Your task to perform on an android device: open device folders in google photos Image 0: 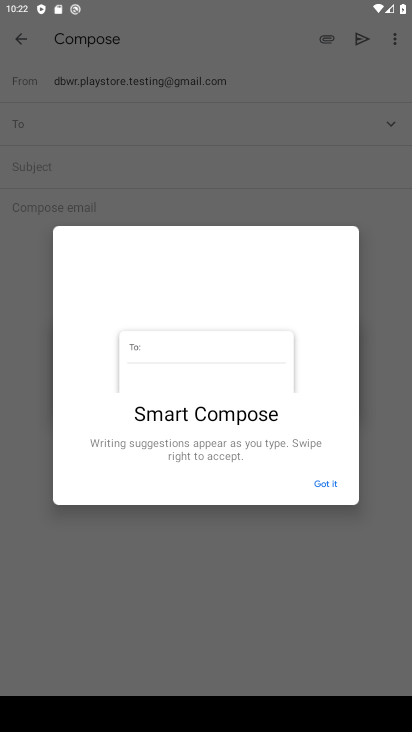
Step 0: click (327, 491)
Your task to perform on an android device: open device folders in google photos Image 1: 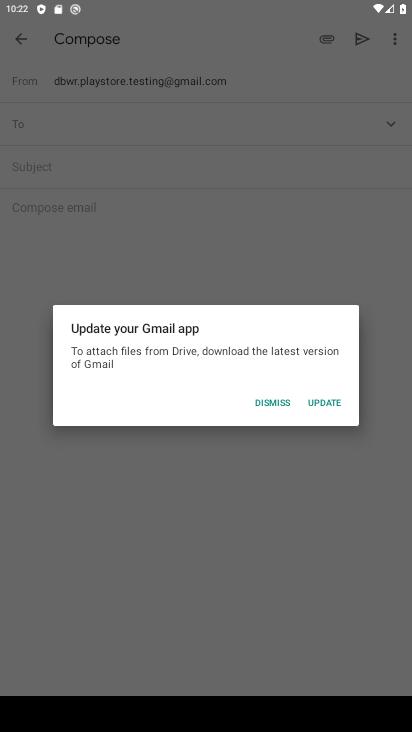
Step 1: click (269, 397)
Your task to perform on an android device: open device folders in google photos Image 2: 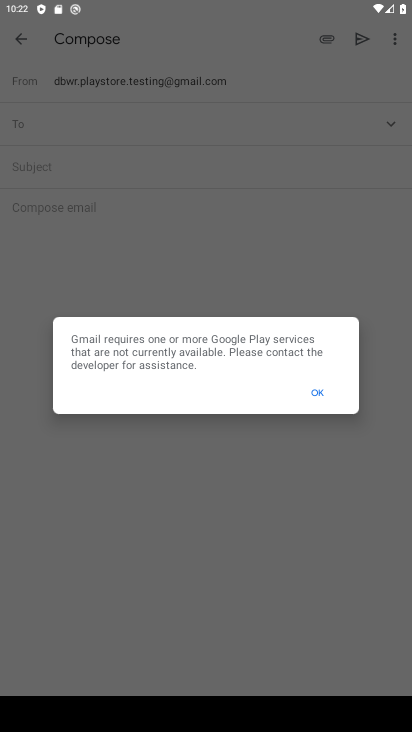
Step 2: click (319, 395)
Your task to perform on an android device: open device folders in google photos Image 3: 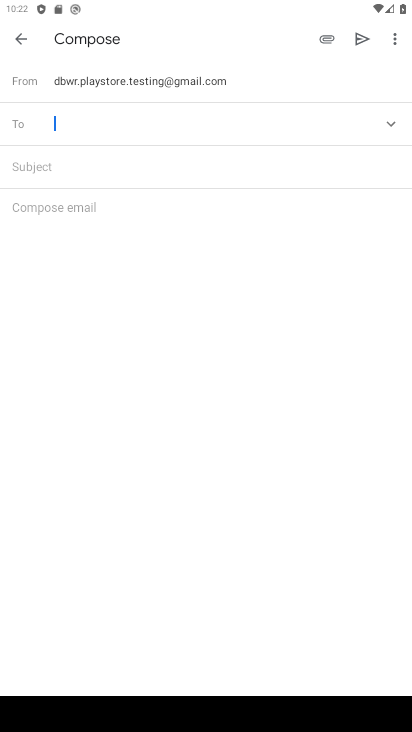
Step 3: click (21, 39)
Your task to perform on an android device: open device folders in google photos Image 4: 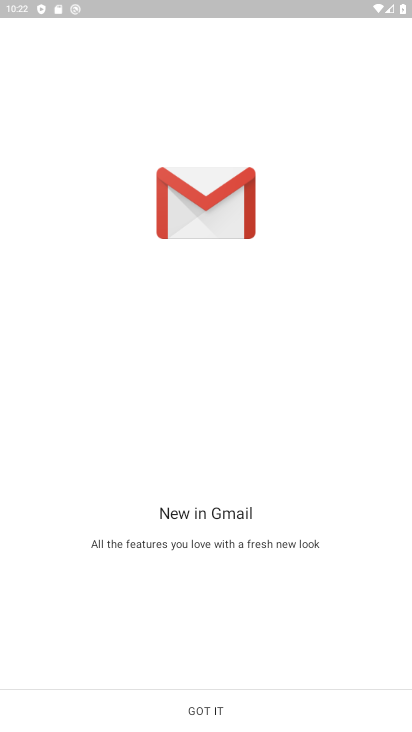
Step 4: press home button
Your task to perform on an android device: open device folders in google photos Image 5: 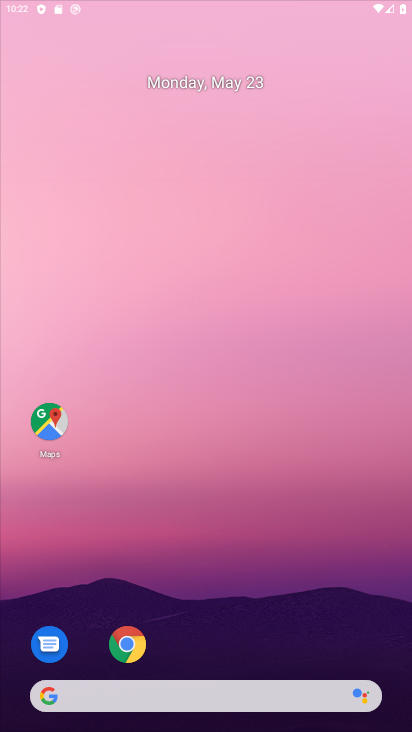
Step 5: press home button
Your task to perform on an android device: open device folders in google photos Image 6: 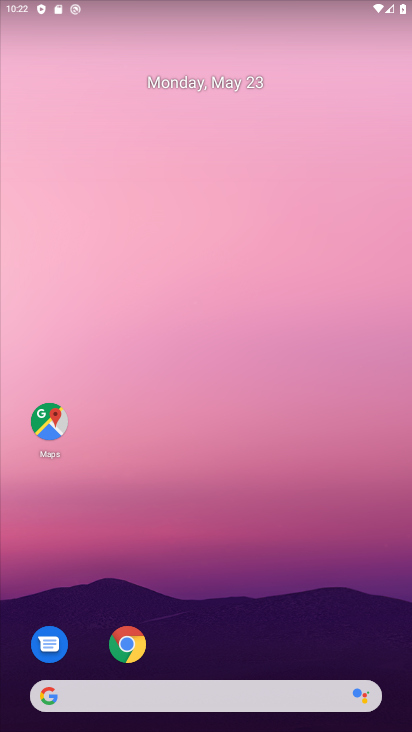
Step 6: drag from (305, 449) to (306, 41)
Your task to perform on an android device: open device folders in google photos Image 7: 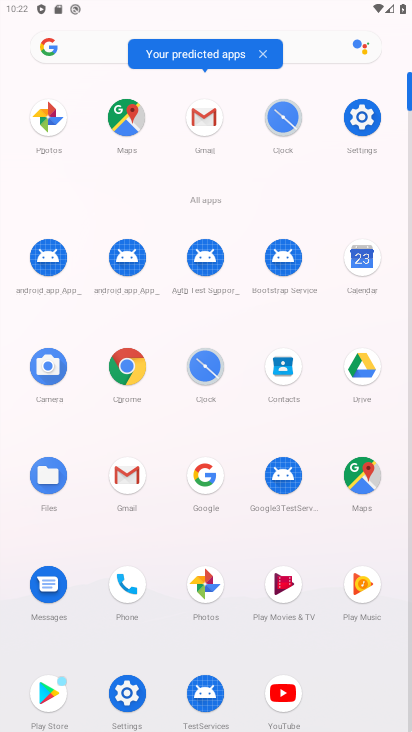
Step 7: click (210, 584)
Your task to perform on an android device: open device folders in google photos Image 8: 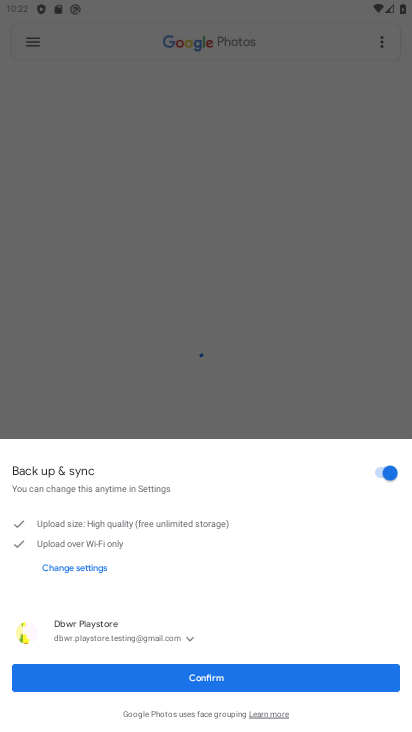
Step 8: click (228, 682)
Your task to perform on an android device: open device folders in google photos Image 9: 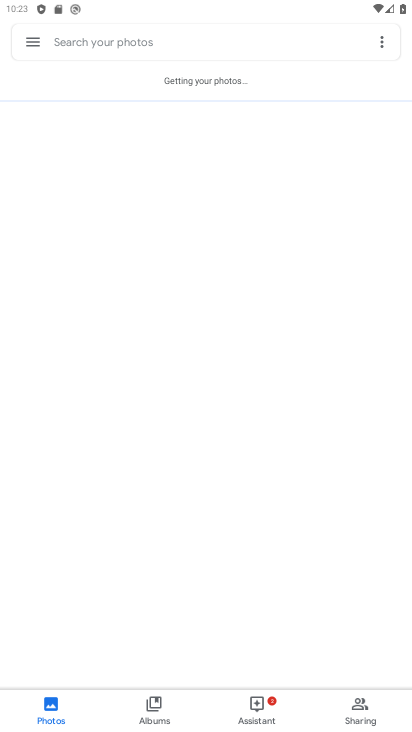
Step 9: click (22, 43)
Your task to perform on an android device: open device folders in google photos Image 10: 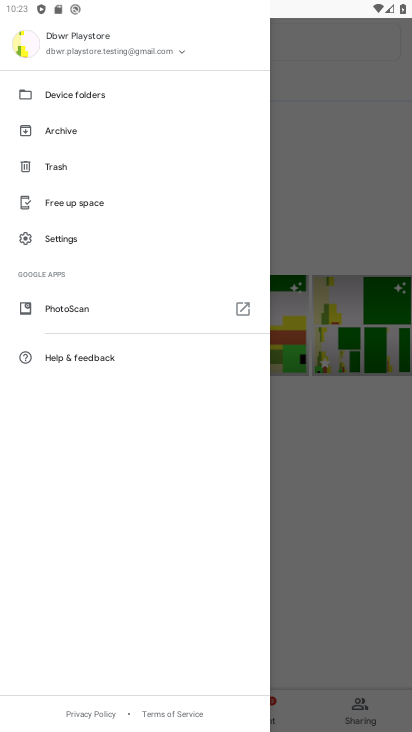
Step 10: click (51, 92)
Your task to perform on an android device: open device folders in google photos Image 11: 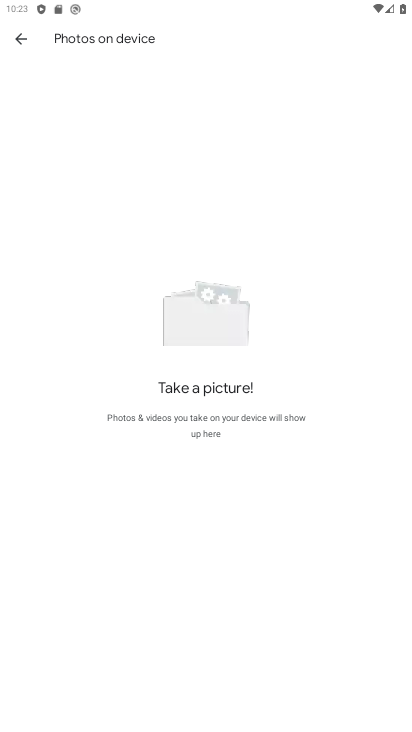
Step 11: task complete